Your task to perform on an android device: Open Chrome and go to the settings page Image 0: 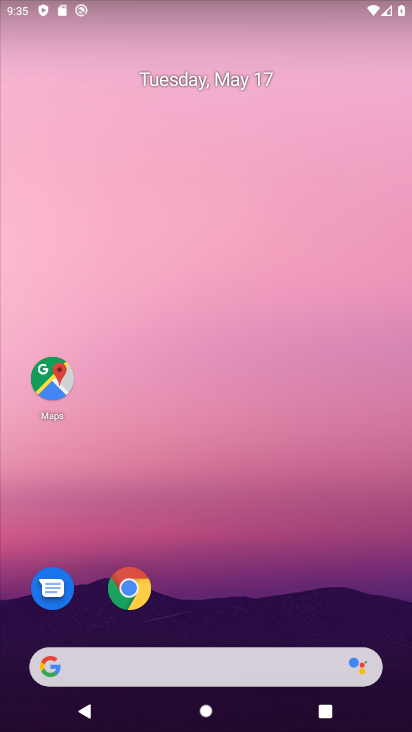
Step 0: click (135, 588)
Your task to perform on an android device: Open Chrome and go to the settings page Image 1: 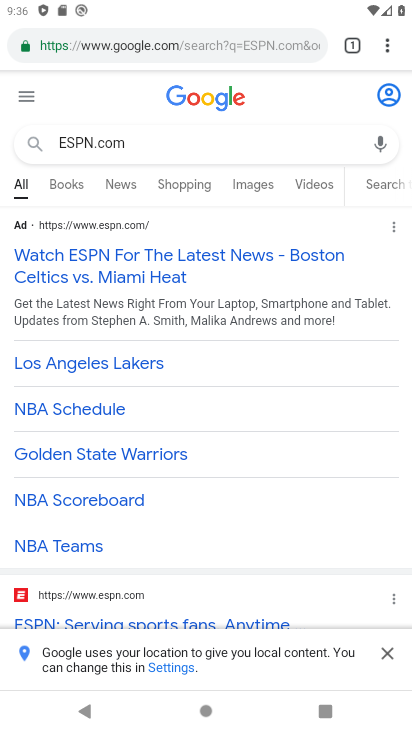
Step 1: click (387, 53)
Your task to perform on an android device: Open Chrome and go to the settings page Image 2: 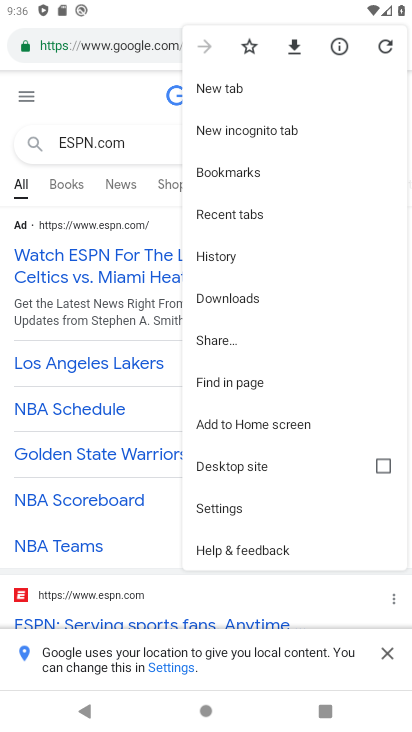
Step 2: click (225, 507)
Your task to perform on an android device: Open Chrome and go to the settings page Image 3: 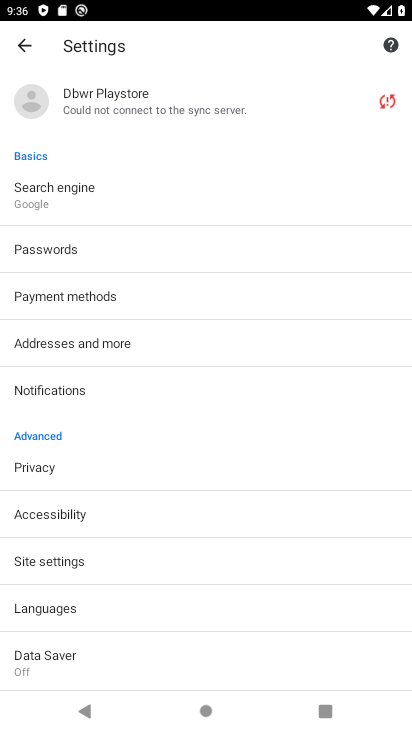
Step 3: task complete